Your task to perform on an android device: turn off picture-in-picture Image 0: 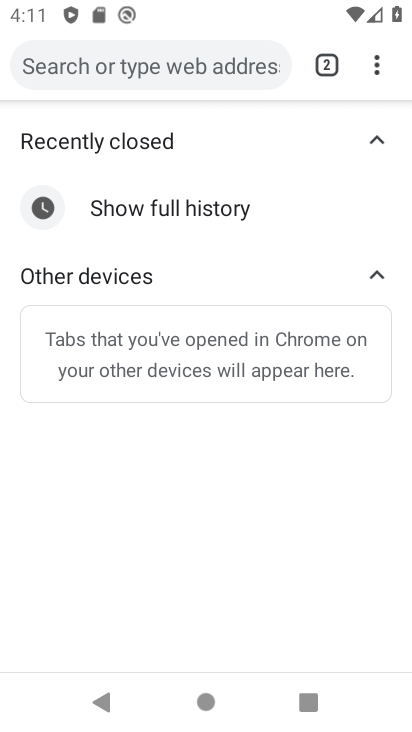
Step 0: press home button
Your task to perform on an android device: turn off picture-in-picture Image 1: 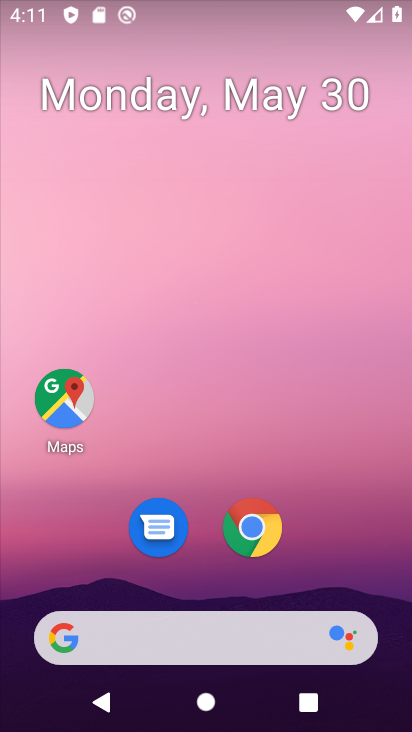
Step 1: drag from (221, 722) to (237, 0)
Your task to perform on an android device: turn off picture-in-picture Image 2: 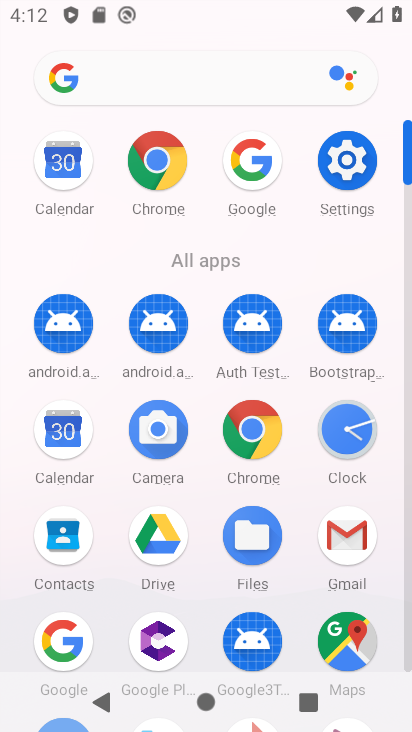
Step 2: click (352, 161)
Your task to perform on an android device: turn off picture-in-picture Image 3: 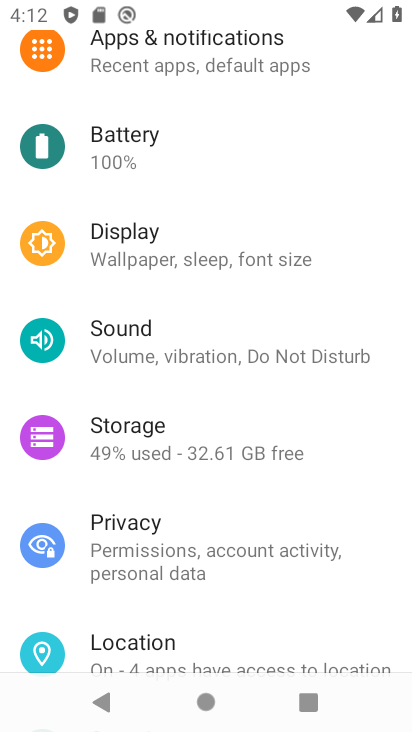
Step 3: drag from (231, 428) to (231, 221)
Your task to perform on an android device: turn off picture-in-picture Image 4: 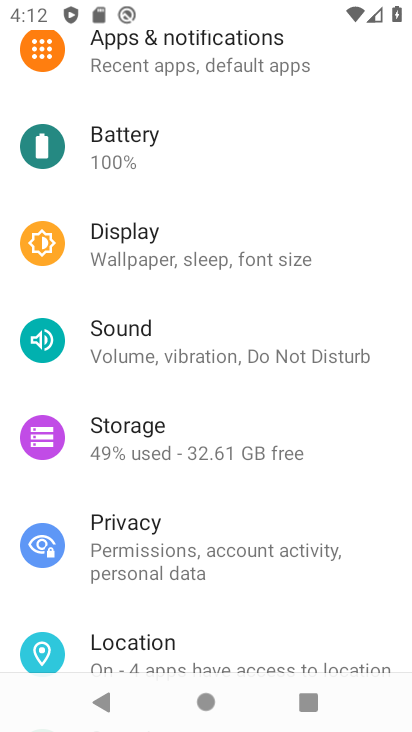
Step 4: drag from (228, 501) to (234, 201)
Your task to perform on an android device: turn off picture-in-picture Image 5: 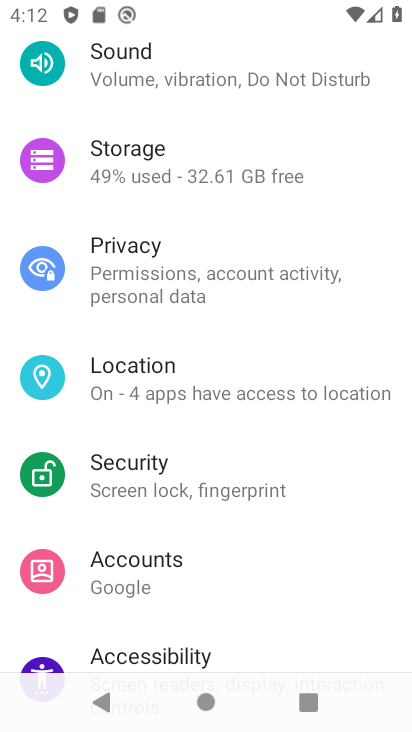
Step 5: drag from (203, 70) to (217, 452)
Your task to perform on an android device: turn off picture-in-picture Image 6: 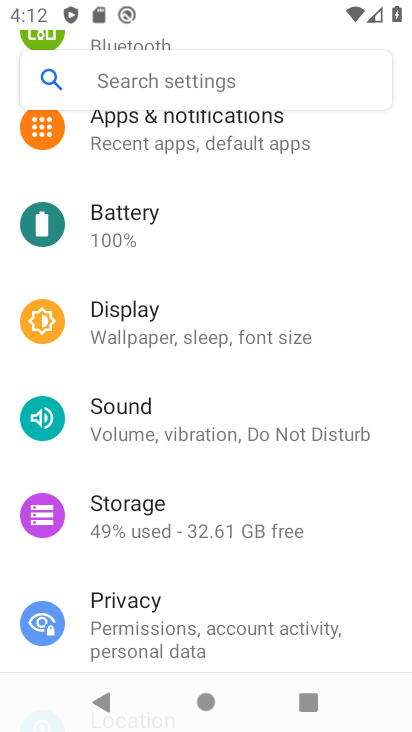
Step 6: click (213, 145)
Your task to perform on an android device: turn off picture-in-picture Image 7: 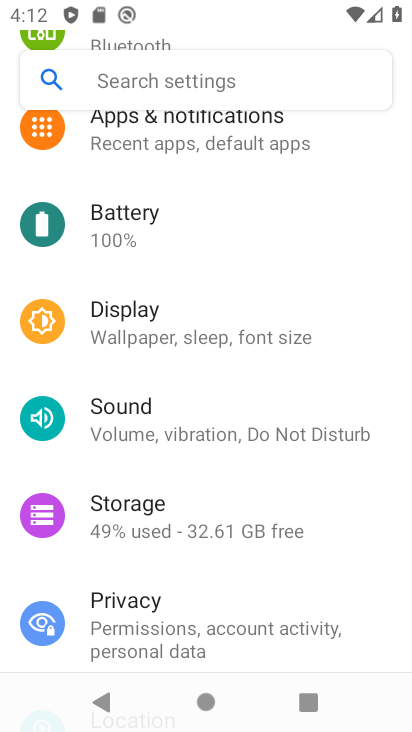
Step 7: click (236, 587)
Your task to perform on an android device: turn off picture-in-picture Image 8: 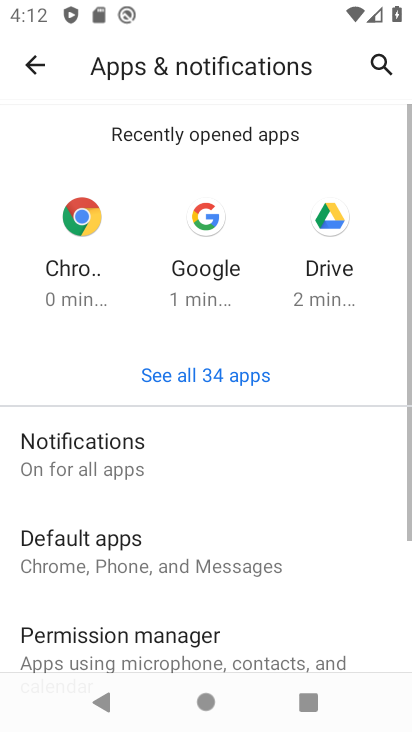
Step 8: drag from (219, 647) to (230, 544)
Your task to perform on an android device: turn off picture-in-picture Image 9: 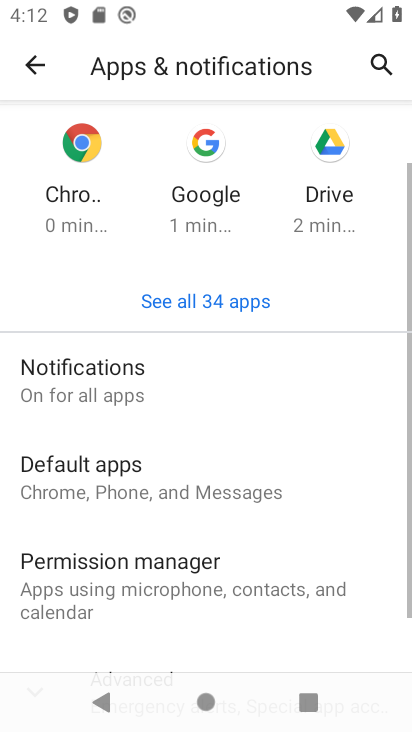
Step 9: drag from (229, 274) to (228, 192)
Your task to perform on an android device: turn off picture-in-picture Image 10: 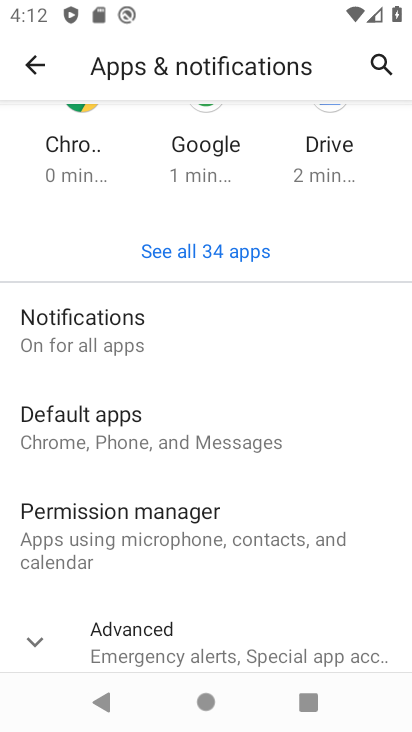
Step 10: drag from (285, 619) to (290, 299)
Your task to perform on an android device: turn off picture-in-picture Image 11: 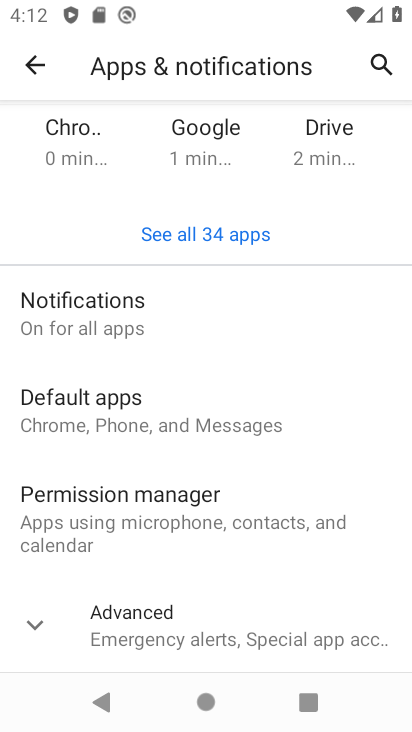
Step 11: click (136, 637)
Your task to perform on an android device: turn off picture-in-picture Image 12: 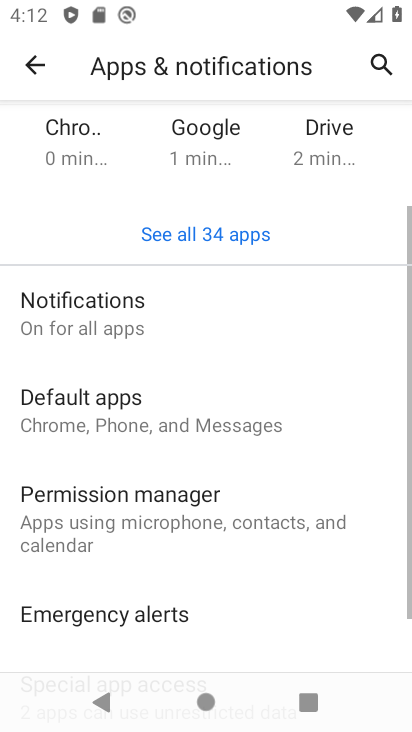
Step 12: drag from (276, 645) to (278, 549)
Your task to perform on an android device: turn off picture-in-picture Image 13: 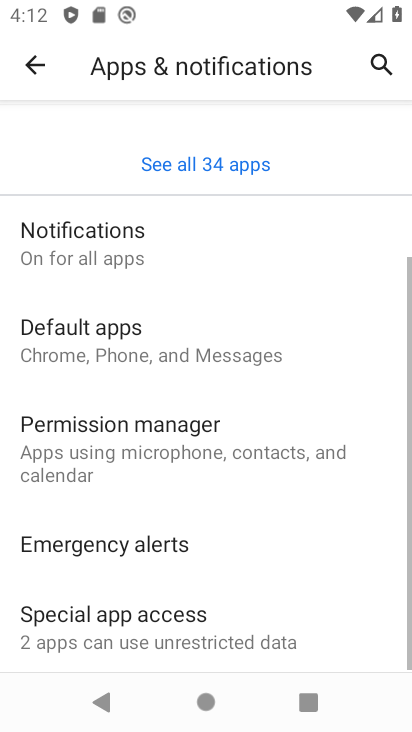
Step 13: drag from (274, 341) to (266, 265)
Your task to perform on an android device: turn off picture-in-picture Image 14: 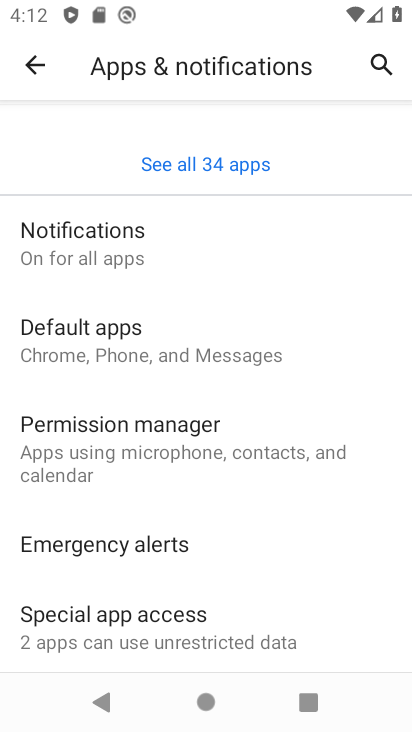
Step 14: drag from (163, 630) to (192, 374)
Your task to perform on an android device: turn off picture-in-picture Image 15: 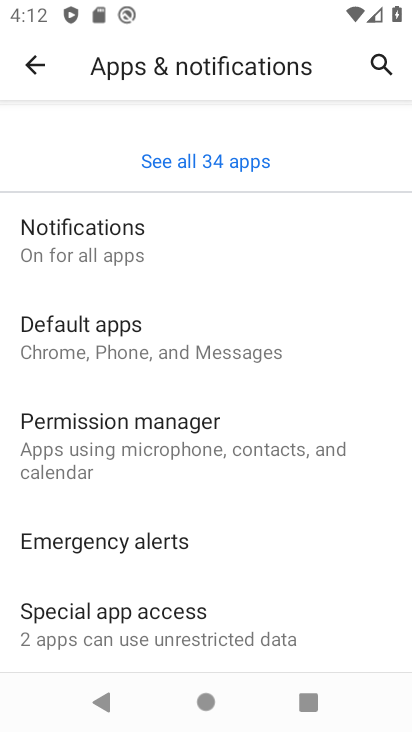
Step 15: click (130, 620)
Your task to perform on an android device: turn off picture-in-picture Image 16: 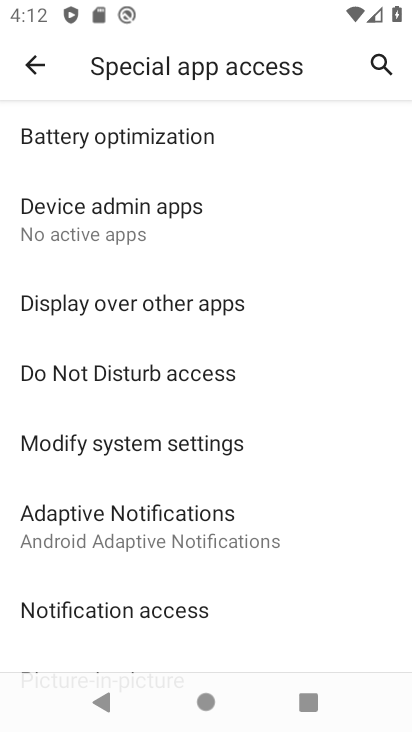
Step 16: drag from (148, 574) to (164, 84)
Your task to perform on an android device: turn off picture-in-picture Image 17: 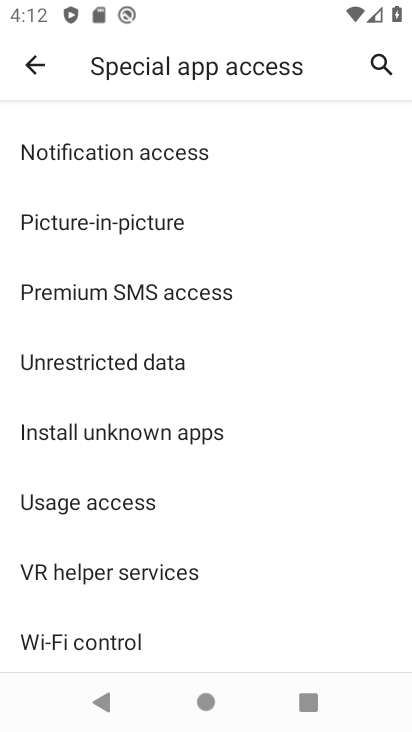
Step 17: click (92, 218)
Your task to perform on an android device: turn off picture-in-picture Image 18: 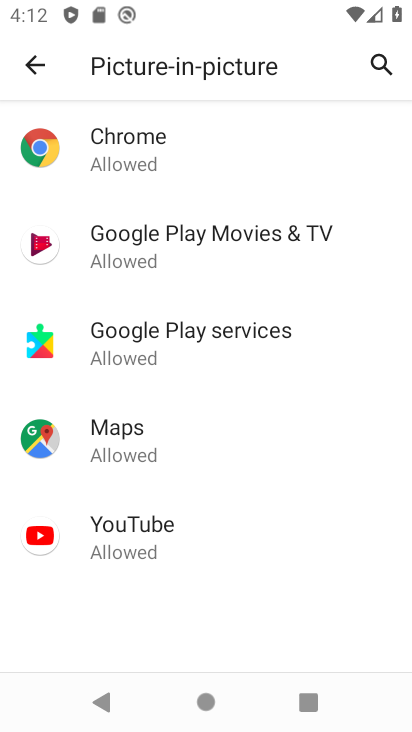
Step 18: click (131, 531)
Your task to perform on an android device: turn off picture-in-picture Image 19: 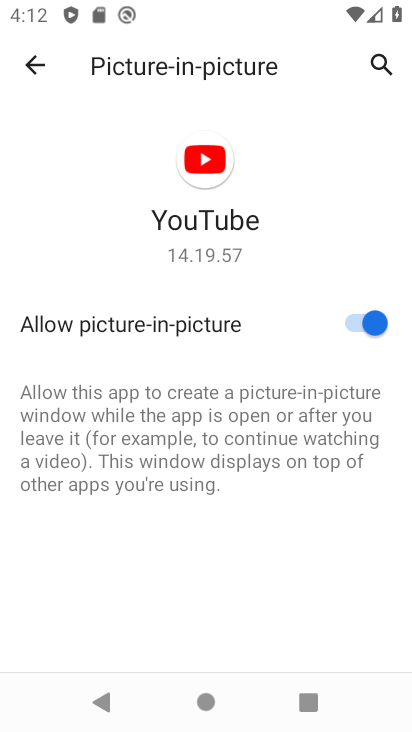
Step 19: click (354, 324)
Your task to perform on an android device: turn off picture-in-picture Image 20: 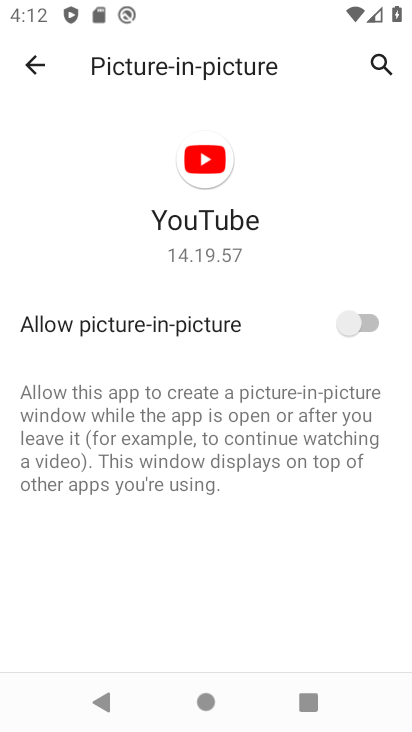
Step 20: task complete